Your task to perform on an android device: turn on bluetooth scan Image 0: 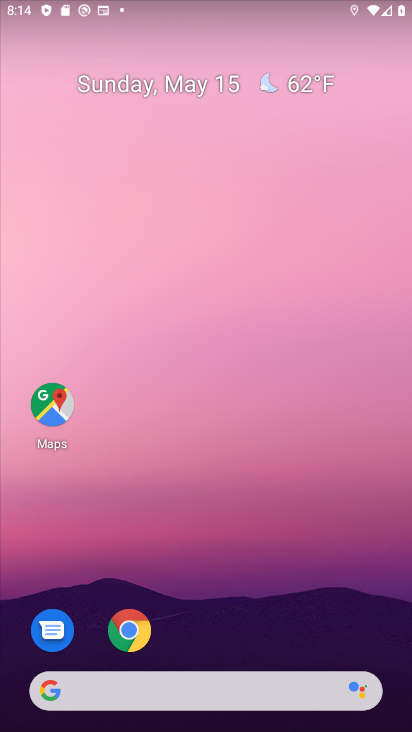
Step 0: drag from (226, 629) to (272, 6)
Your task to perform on an android device: turn on bluetooth scan Image 1: 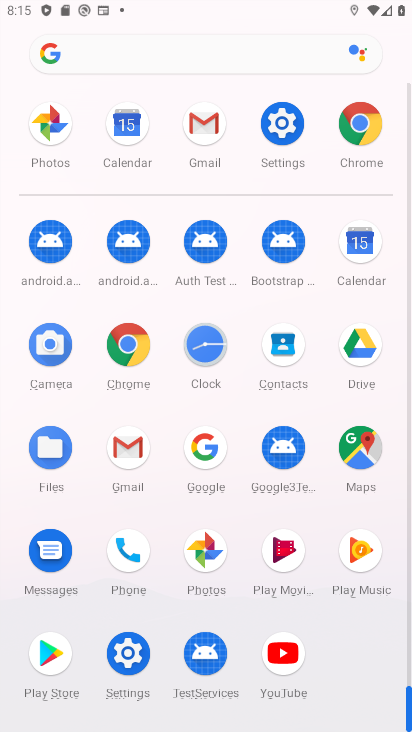
Step 1: click (134, 653)
Your task to perform on an android device: turn on bluetooth scan Image 2: 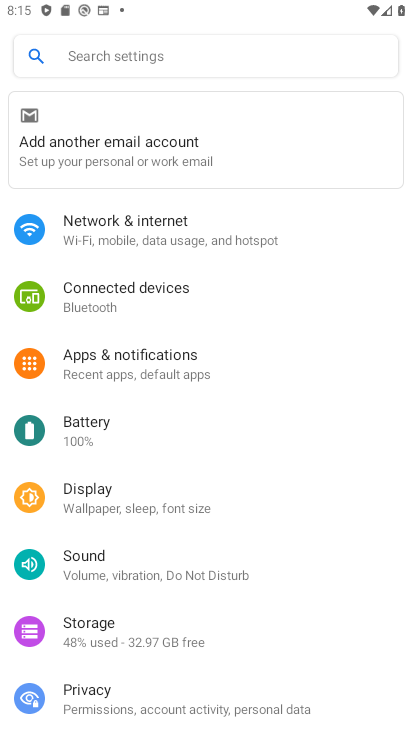
Step 2: drag from (146, 568) to (216, 213)
Your task to perform on an android device: turn on bluetooth scan Image 3: 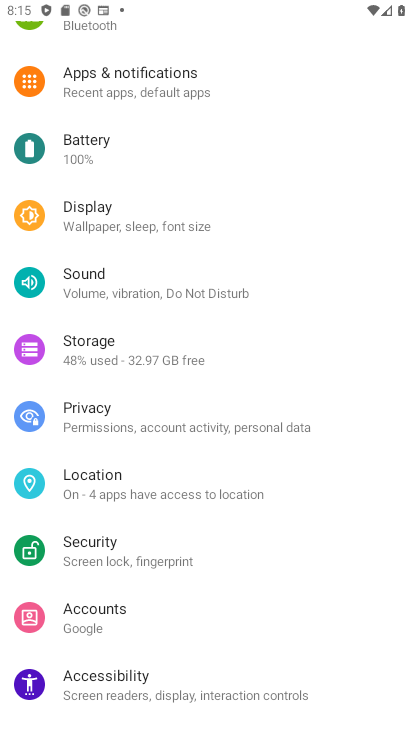
Step 3: click (134, 496)
Your task to perform on an android device: turn on bluetooth scan Image 4: 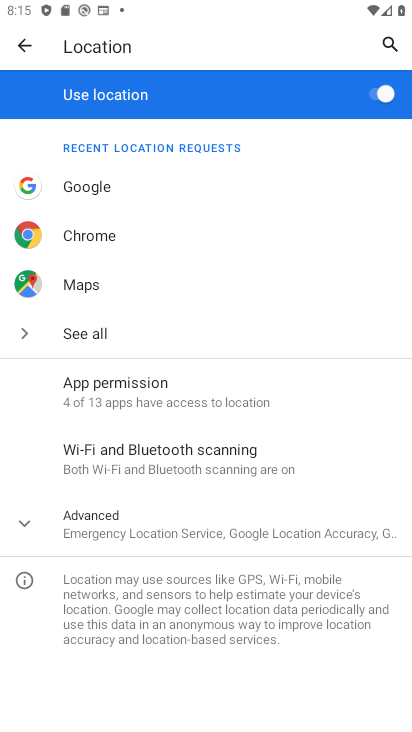
Step 4: click (130, 469)
Your task to perform on an android device: turn on bluetooth scan Image 5: 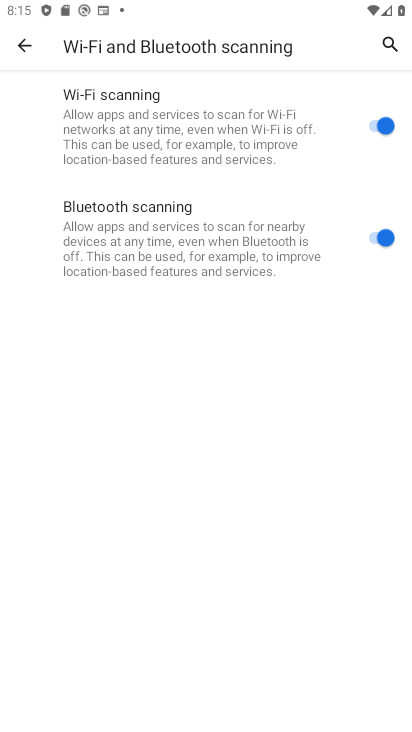
Step 5: task complete